Your task to perform on an android device: Go to display settings Image 0: 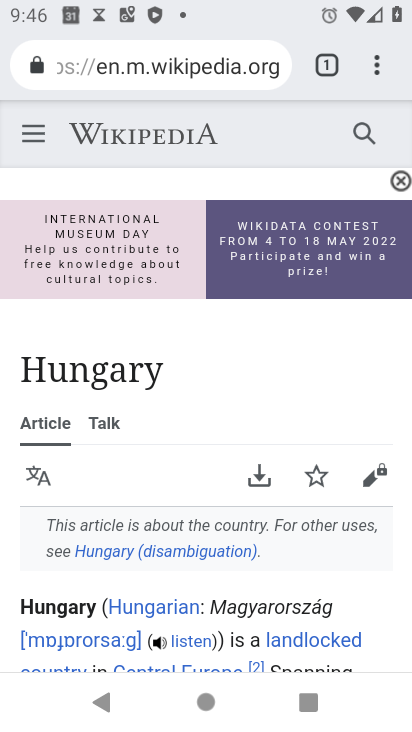
Step 0: click (121, 7)
Your task to perform on an android device: Go to display settings Image 1: 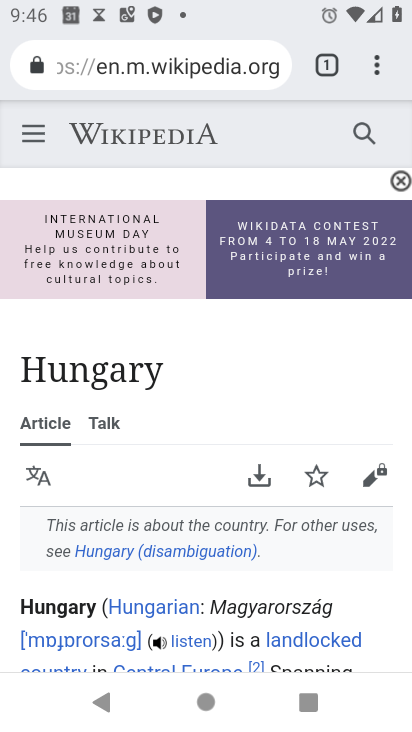
Step 1: drag from (155, 7) to (272, 482)
Your task to perform on an android device: Go to display settings Image 2: 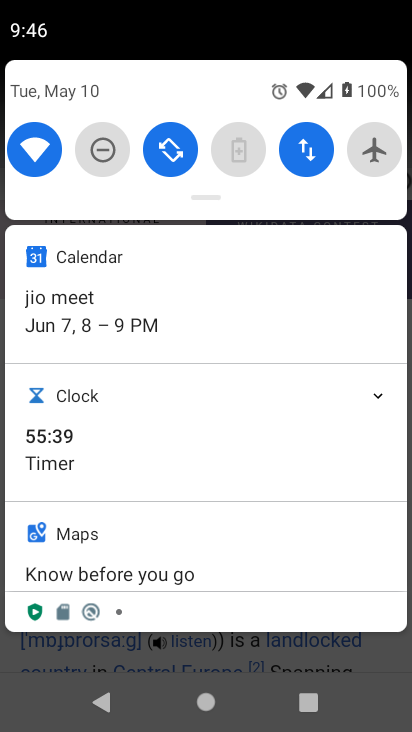
Step 2: drag from (219, 191) to (269, 584)
Your task to perform on an android device: Go to display settings Image 3: 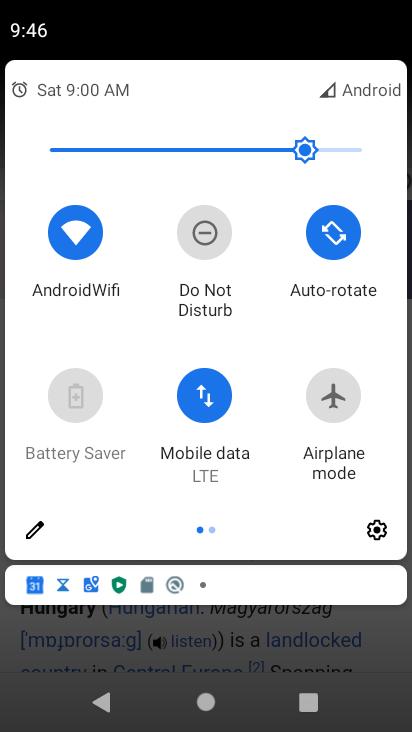
Step 3: click (373, 536)
Your task to perform on an android device: Go to display settings Image 4: 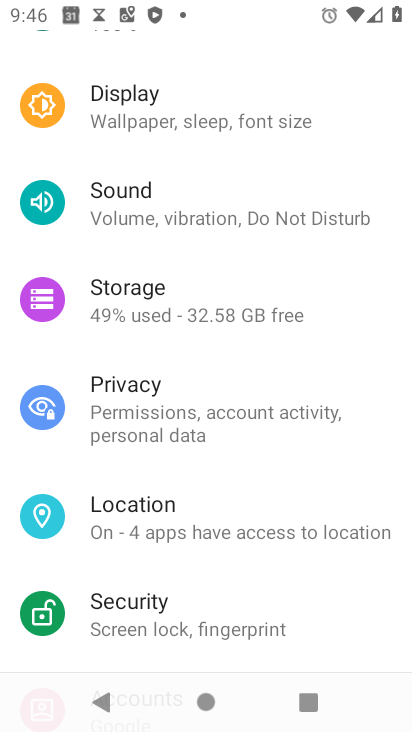
Step 4: click (147, 128)
Your task to perform on an android device: Go to display settings Image 5: 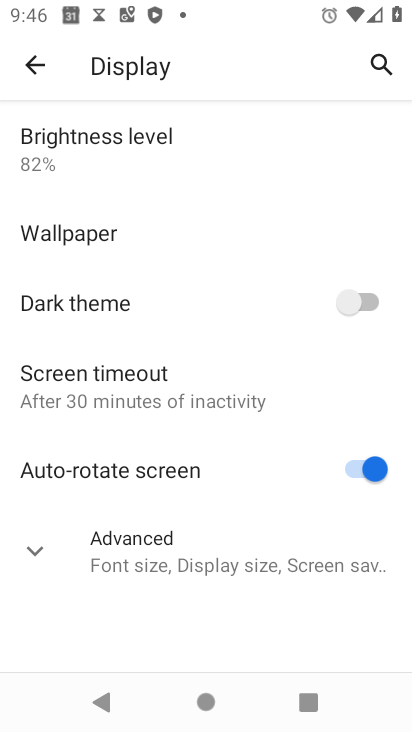
Step 5: task complete